Your task to perform on an android device: see sites visited before in the chrome app Image 0: 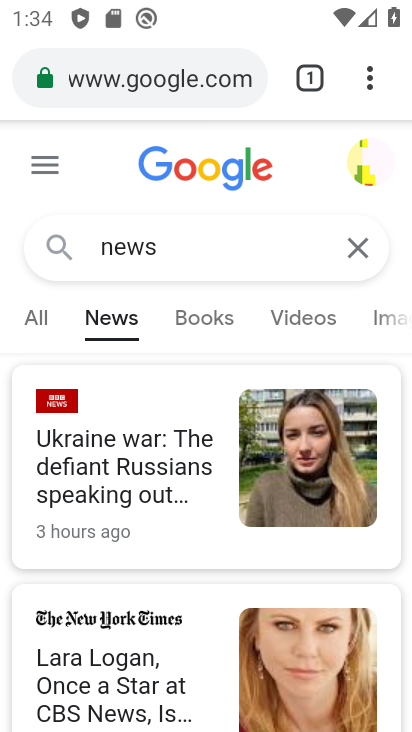
Step 0: drag from (376, 83) to (152, 446)
Your task to perform on an android device: see sites visited before in the chrome app Image 1: 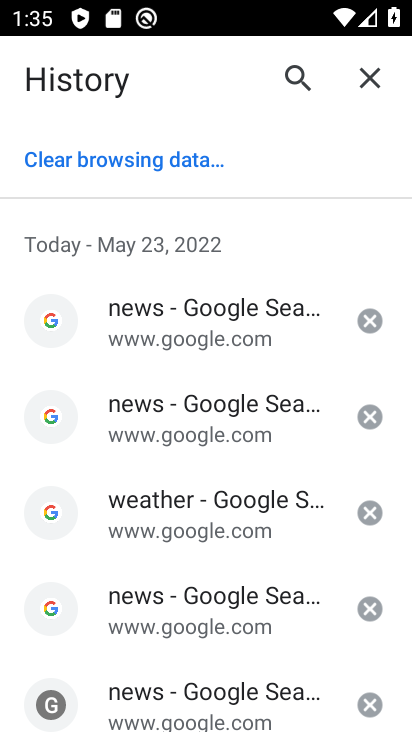
Step 1: task complete